Your task to perform on an android device: Search for Mexican restaurants on Maps Image 0: 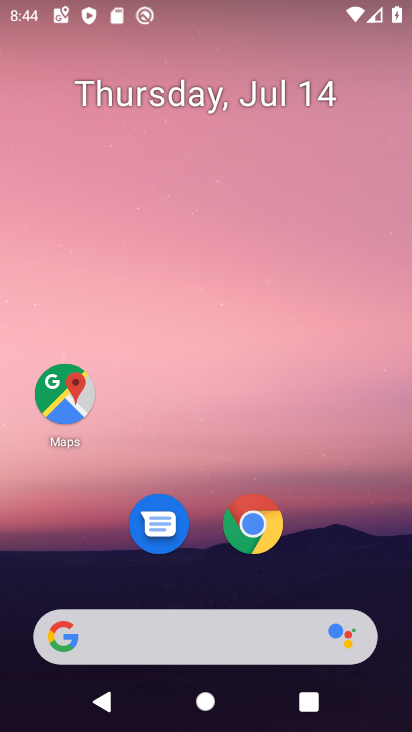
Step 0: click (52, 385)
Your task to perform on an android device: Search for Mexican restaurants on Maps Image 1: 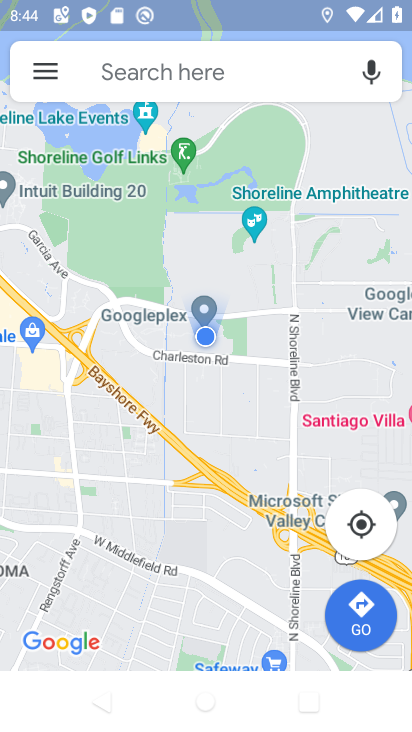
Step 1: click (204, 71)
Your task to perform on an android device: Search for Mexican restaurants on Maps Image 2: 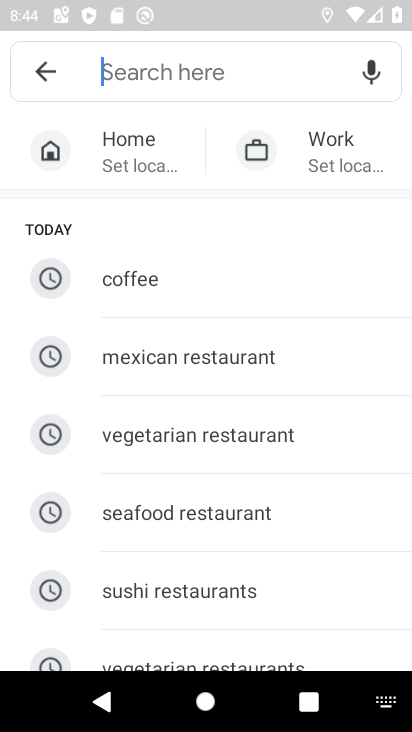
Step 2: click (227, 361)
Your task to perform on an android device: Search for Mexican restaurants on Maps Image 3: 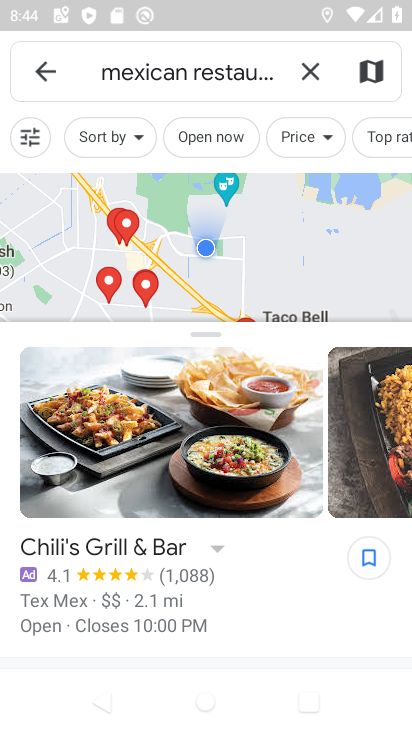
Step 3: task complete